Your task to perform on an android device: delete location history Image 0: 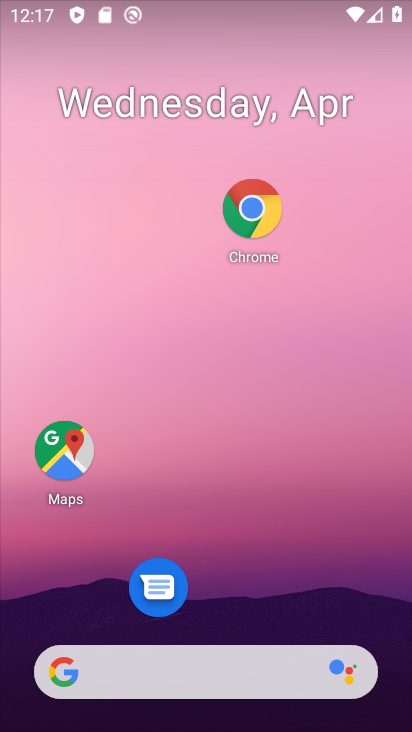
Step 0: drag from (230, 613) to (279, 352)
Your task to perform on an android device: delete location history Image 1: 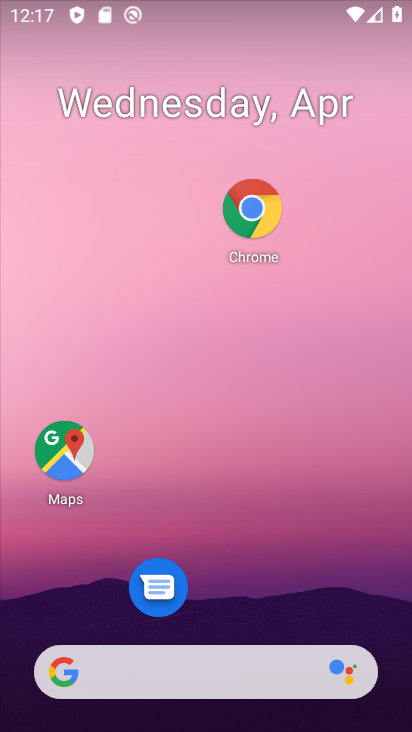
Step 1: drag from (285, 627) to (411, 24)
Your task to perform on an android device: delete location history Image 2: 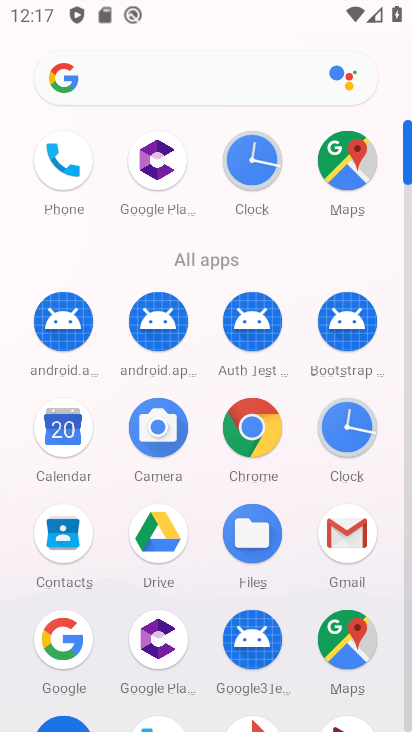
Step 2: drag from (195, 575) to (238, 226)
Your task to perform on an android device: delete location history Image 3: 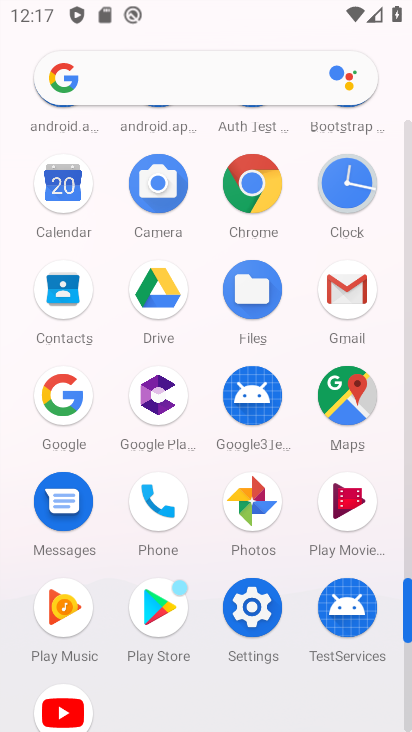
Step 3: click (251, 600)
Your task to perform on an android device: delete location history Image 4: 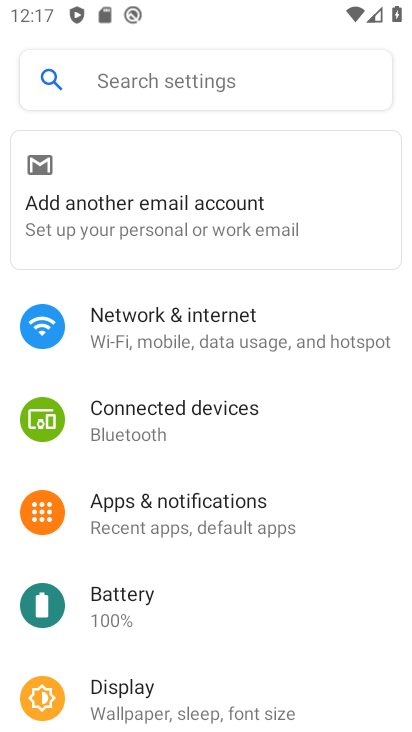
Step 4: drag from (238, 583) to (268, 408)
Your task to perform on an android device: delete location history Image 5: 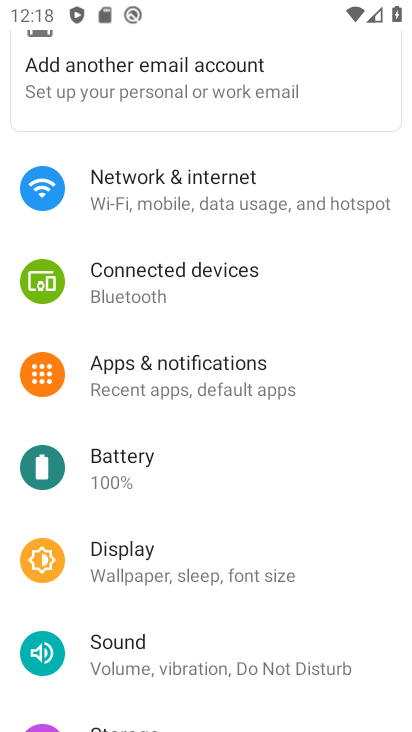
Step 5: drag from (224, 513) to (243, 398)
Your task to perform on an android device: delete location history Image 6: 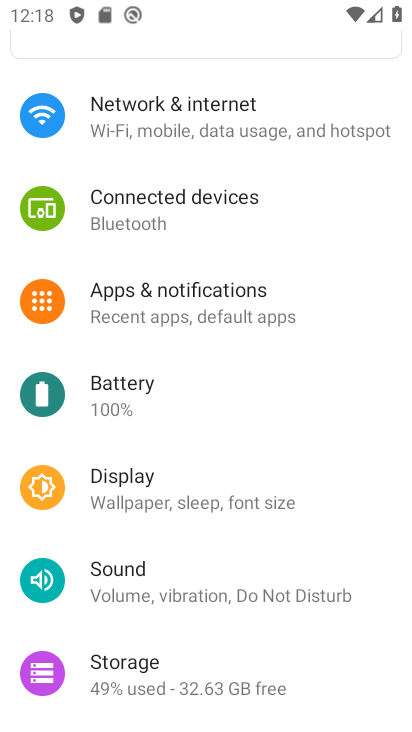
Step 6: drag from (185, 560) to (242, 226)
Your task to perform on an android device: delete location history Image 7: 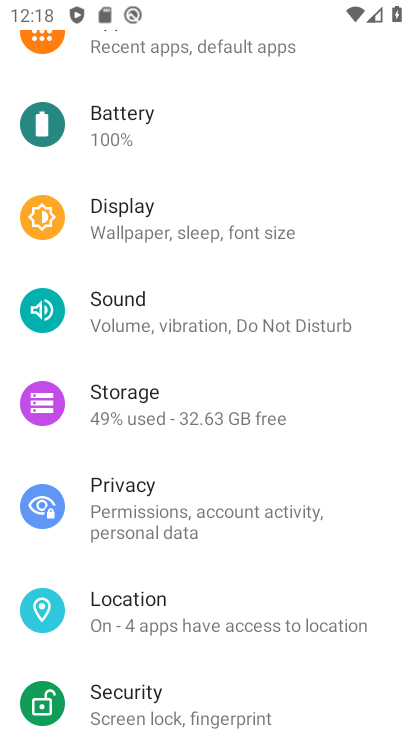
Step 7: click (175, 608)
Your task to perform on an android device: delete location history Image 8: 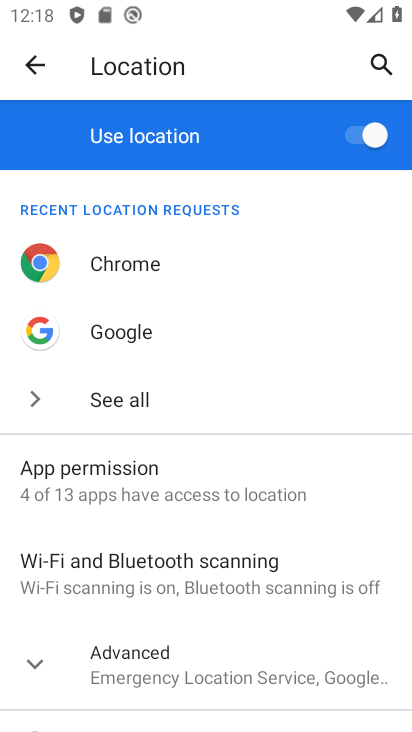
Step 8: click (29, 668)
Your task to perform on an android device: delete location history Image 9: 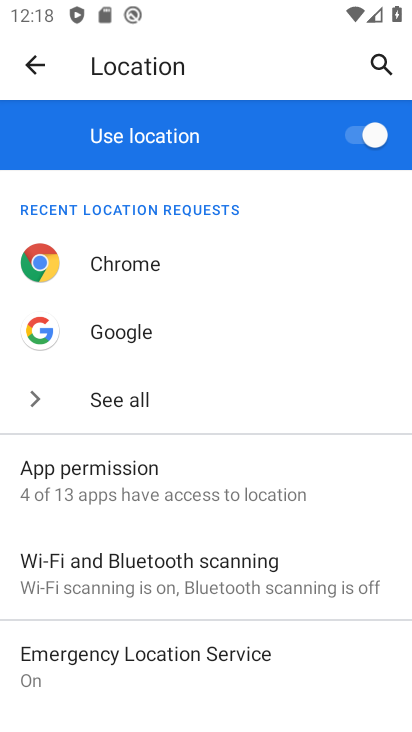
Step 9: drag from (116, 601) to (198, 341)
Your task to perform on an android device: delete location history Image 10: 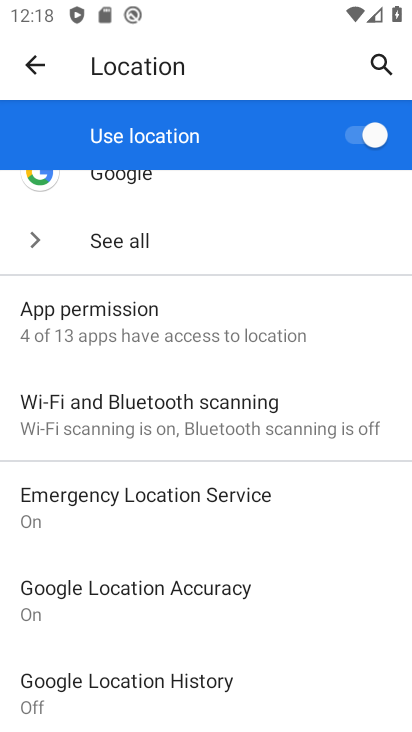
Step 10: click (136, 690)
Your task to perform on an android device: delete location history Image 11: 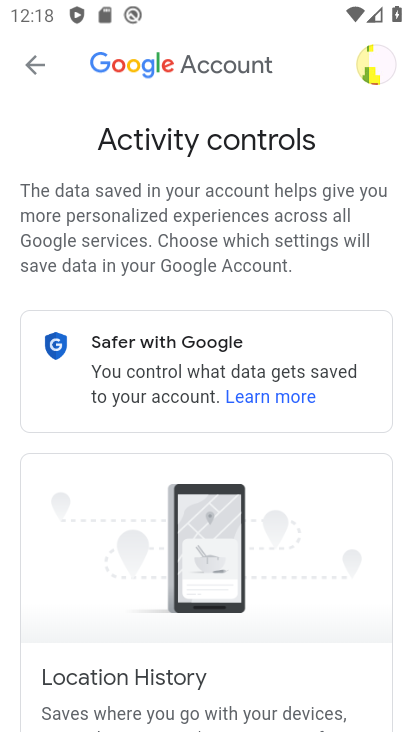
Step 11: drag from (311, 462) to (360, 210)
Your task to perform on an android device: delete location history Image 12: 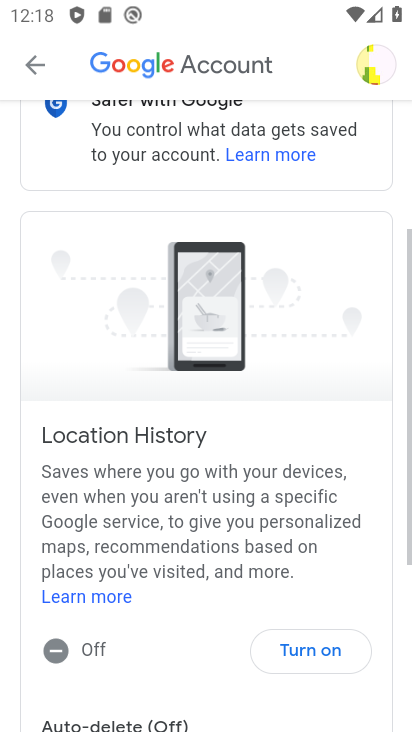
Step 12: drag from (230, 584) to (288, 367)
Your task to perform on an android device: delete location history Image 13: 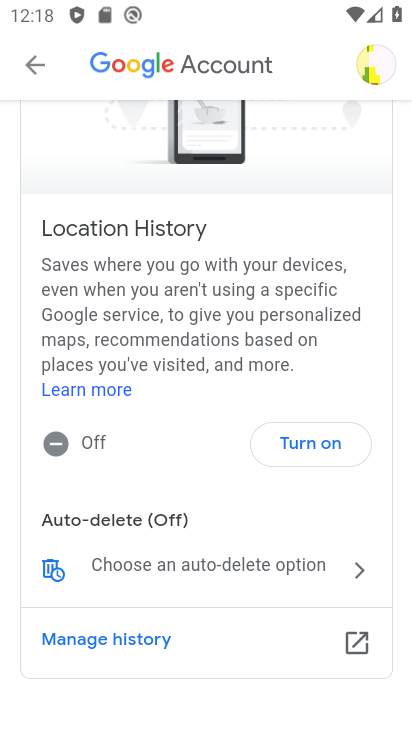
Step 13: click (328, 557)
Your task to perform on an android device: delete location history Image 14: 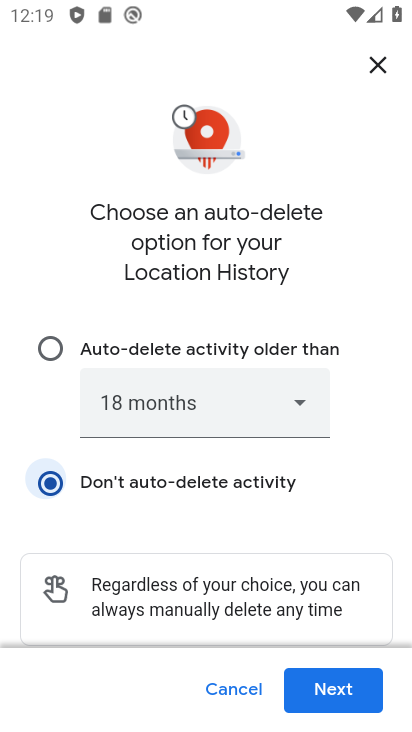
Step 14: click (337, 681)
Your task to perform on an android device: delete location history Image 15: 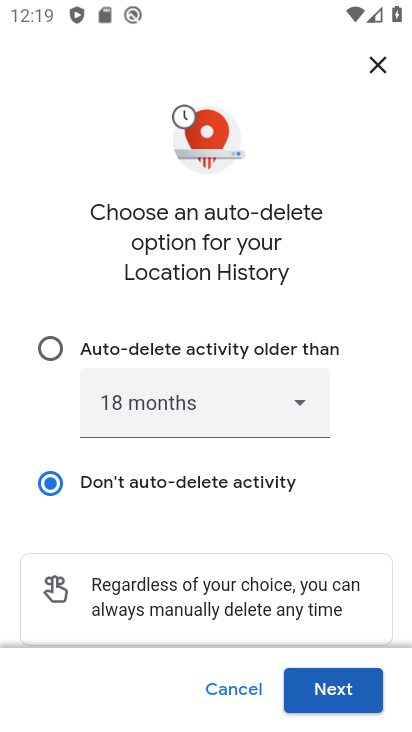
Step 15: click (366, 681)
Your task to perform on an android device: delete location history Image 16: 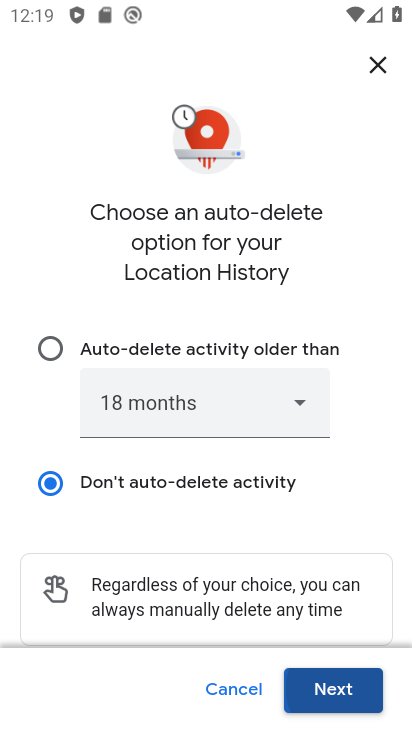
Step 16: task complete